Your task to perform on an android device: open a bookmark in the chrome app Image 0: 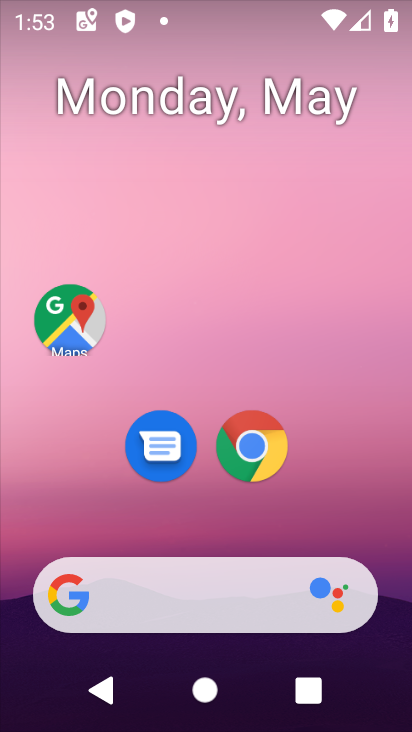
Step 0: click (250, 436)
Your task to perform on an android device: open a bookmark in the chrome app Image 1: 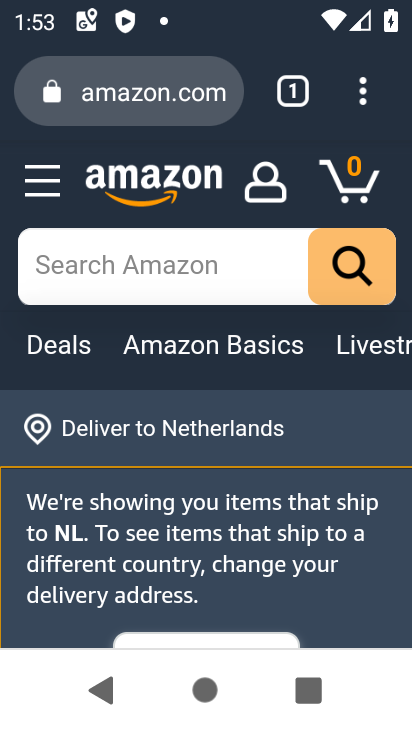
Step 1: task complete